Your task to perform on an android device: search for starred emails in the gmail app Image 0: 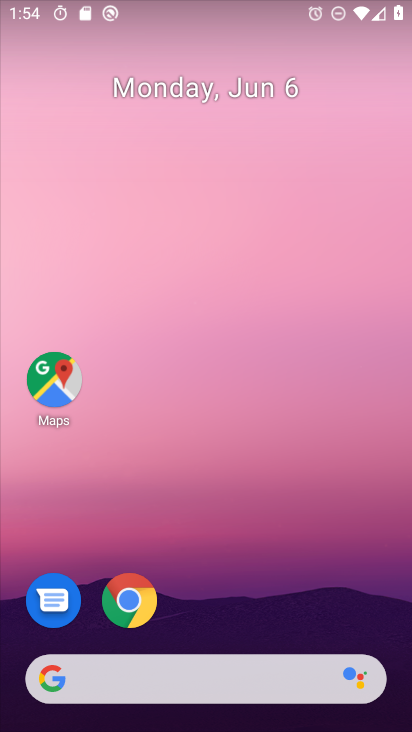
Step 0: drag from (209, 612) to (215, 282)
Your task to perform on an android device: search for starred emails in the gmail app Image 1: 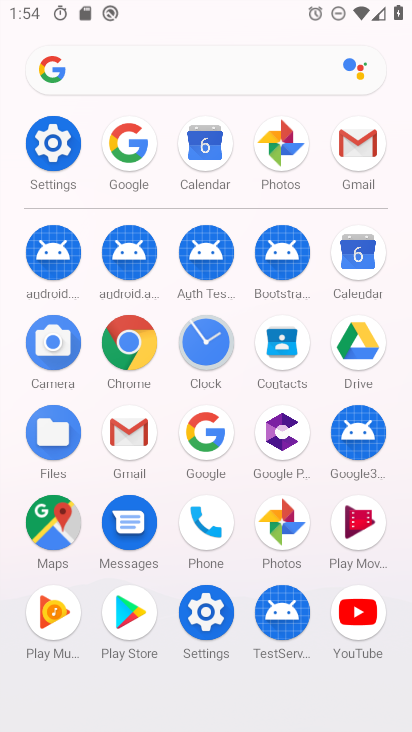
Step 1: click (347, 152)
Your task to perform on an android device: search for starred emails in the gmail app Image 2: 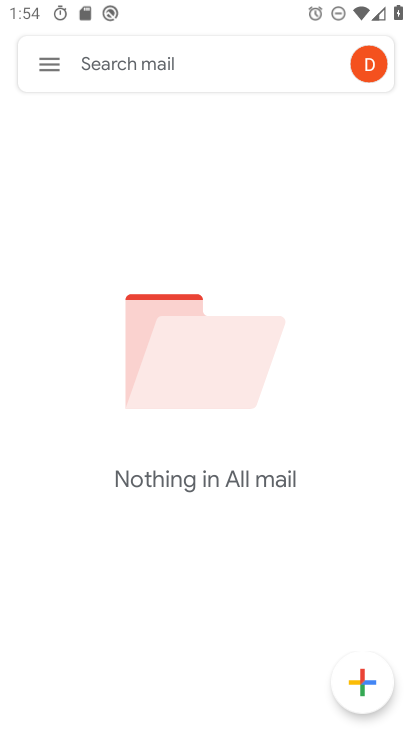
Step 2: click (50, 74)
Your task to perform on an android device: search for starred emails in the gmail app Image 3: 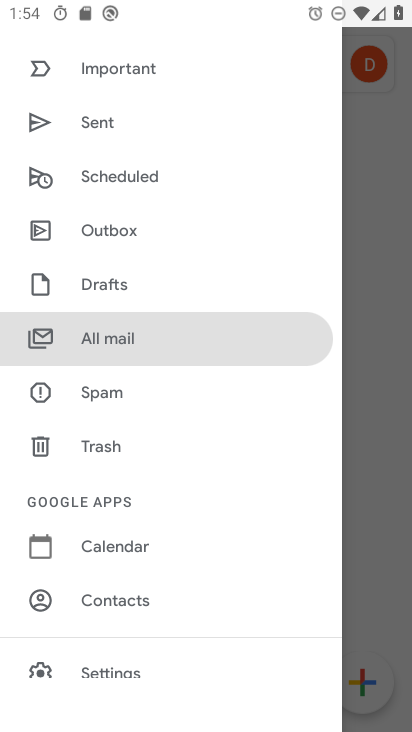
Step 3: drag from (168, 109) to (202, 429)
Your task to perform on an android device: search for starred emails in the gmail app Image 4: 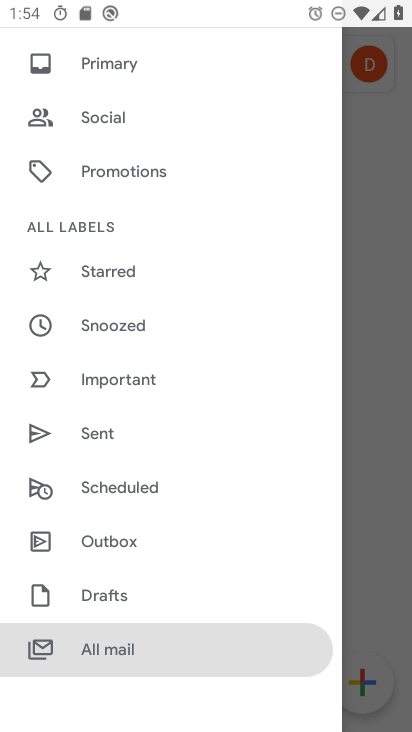
Step 4: click (174, 269)
Your task to perform on an android device: search for starred emails in the gmail app Image 5: 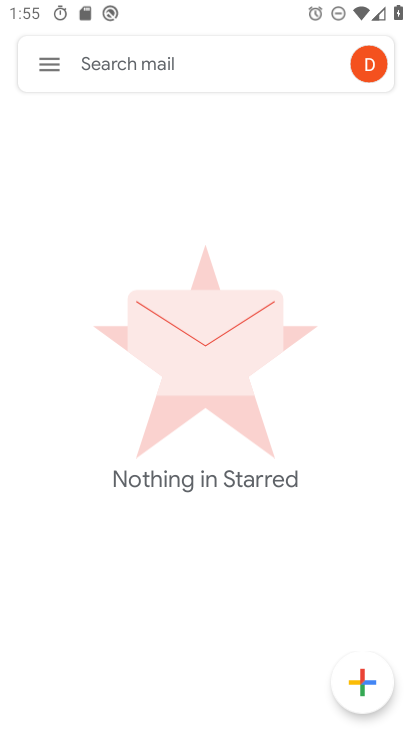
Step 5: task complete